Your task to perform on an android device: What's the weather? Image 0: 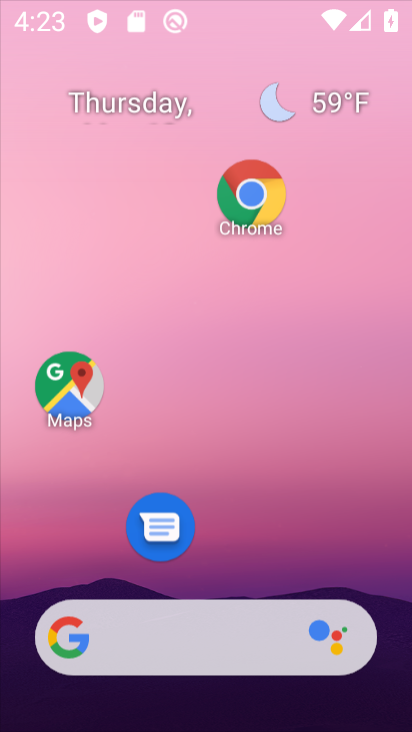
Step 0: press home button
Your task to perform on an android device: What's the weather? Image 1: 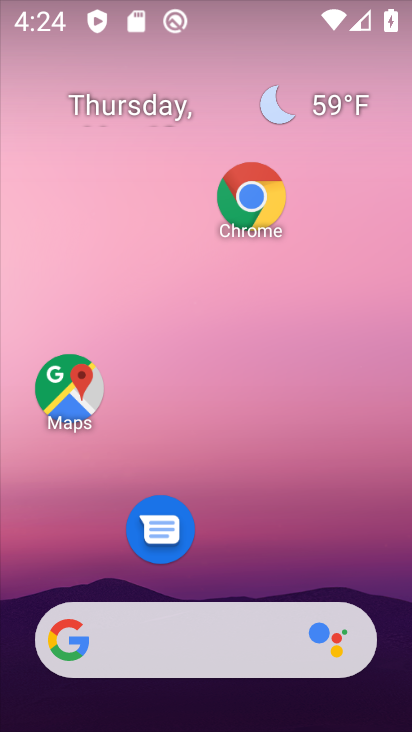
Step 1: click (325, 103)
Your task to perform on an android device: What's the weather? Image 2: 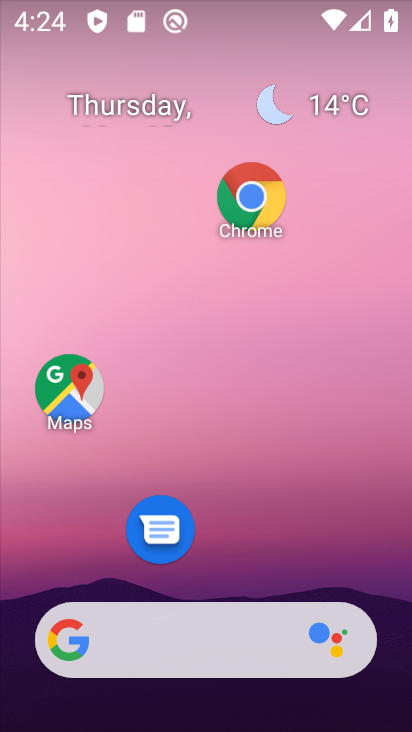
Step 2: click (324, 100)
Your task to perform on an android device: What's the weather? Image 3: 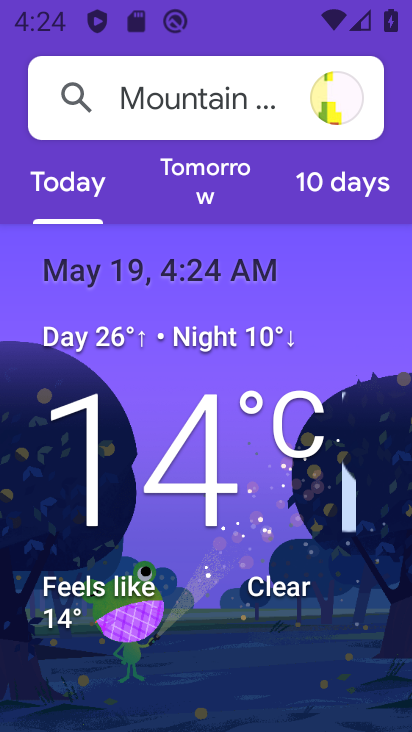
Step 3: task complete